Your task to perform on an android device: turn on data saver in the chrome app Image 0: 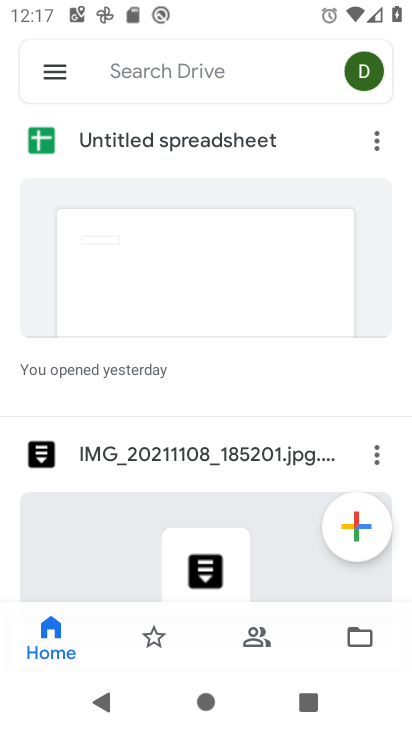
Step 0: press home button
Your task to perform on an android device: turn on data saver in the chrome app Image 1: 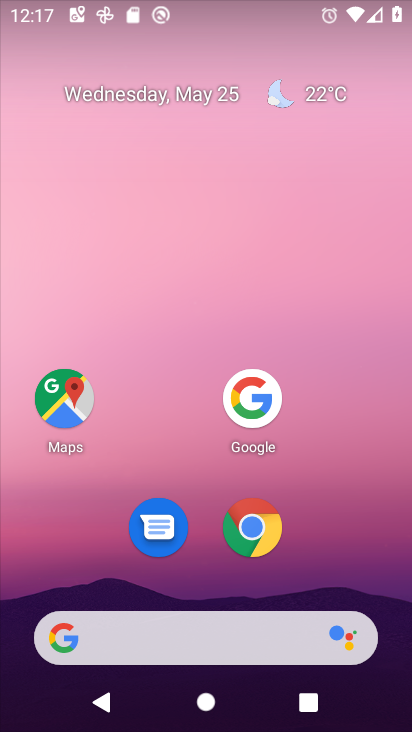
Step 1: click (257, 536)
Your task to perform on an android device: turn on data saver in the chrome app Image 2: 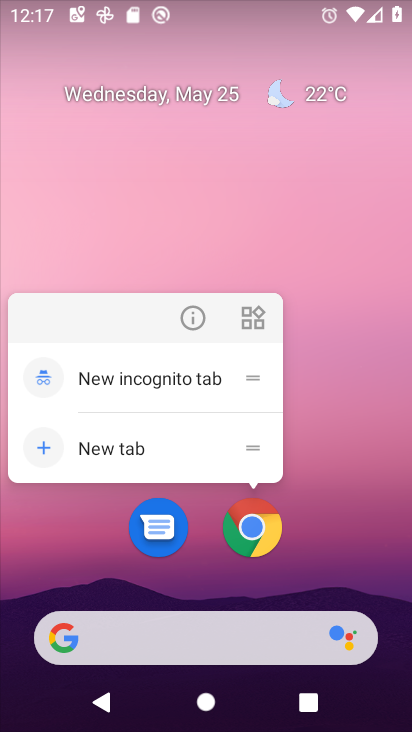
Step 2: click (252, 530)
Your task to perform on an android device: turn on data saver in the chrome app Image 3: 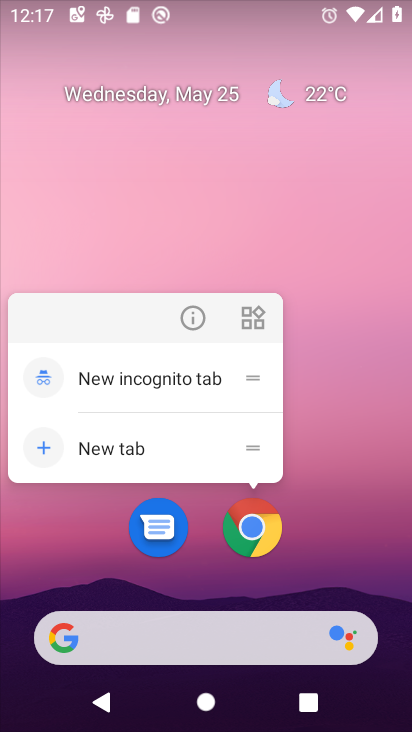
Step 3: click (261, 532)
Your task to perform on an android device: turn on data saver in the chrome app Image 4: 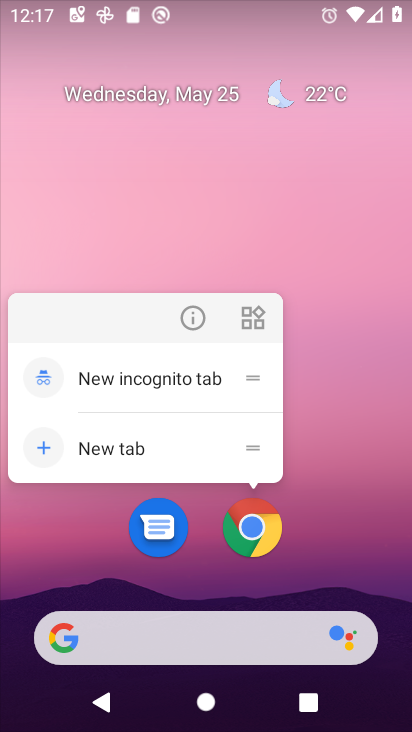
Step 4: click (250, 531)
Your task to perform on an android device: turn on data saver in the chrome app Image 5: 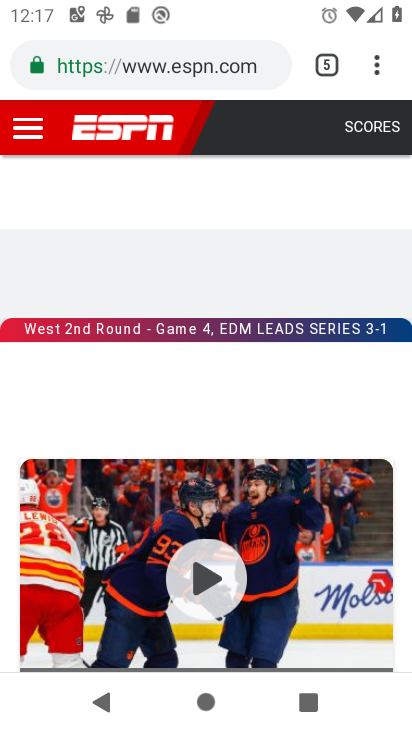
Step 5: drag from (371, 60) to (205, 583)
Your task to perform on an android device: turn on data saver in the chrome app Image 6: 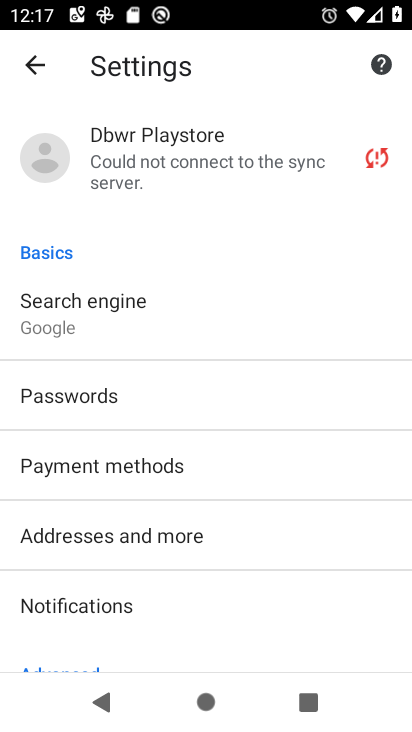
Step 6: drag from (206, 628) to (346, 93)
Your task to perform on an android device: turn on data saver in the chrome app Image 7: 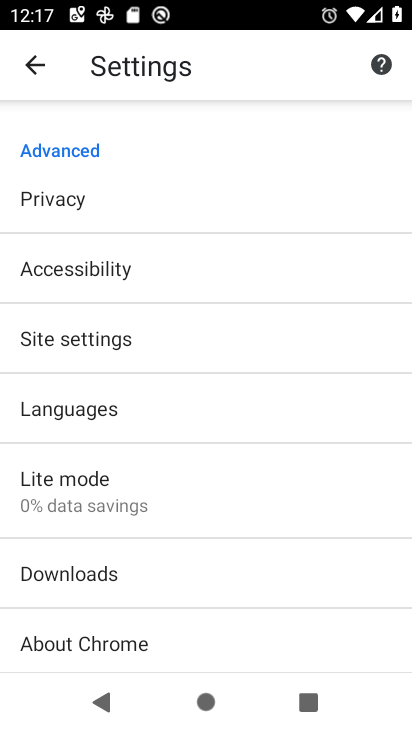
Step 7: click (134, 492)
Your task to perform on an android device: turn on data saver in the chrome app Image 8: 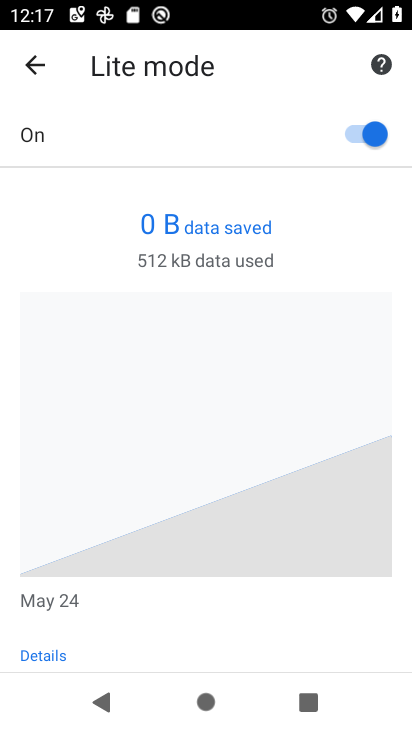
Step 8: task complete